Your task to perform on an android device: What's the weather going to be this weekend? Image 0: 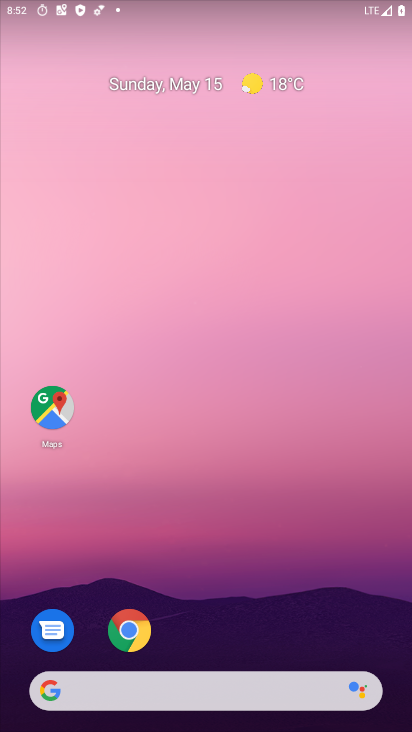
Step 0: click (363, 30)
Your task to perform on an android device: What's the weather going to be this weekend? Image 1: 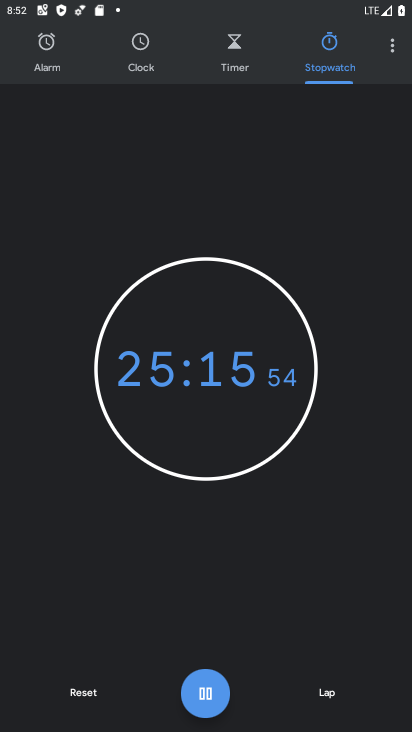
Step 1: click (331, 422)
Your task to perform on an android device: What's the weather going to be this weekend? Image 2: 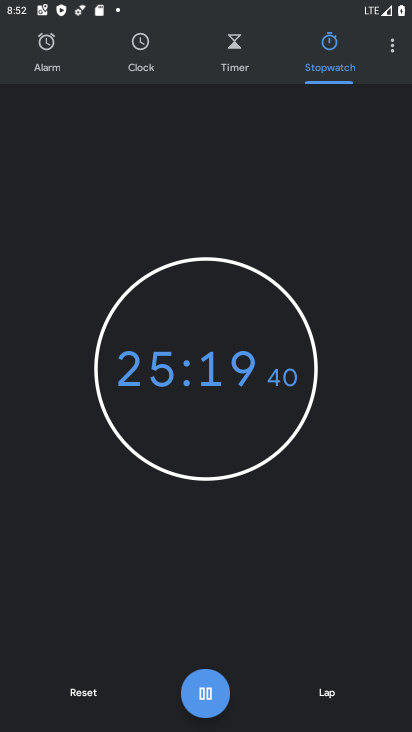
Step 2: press home button
Your task to perform on an android device: What's the weather going to be this weekend? Image 3: 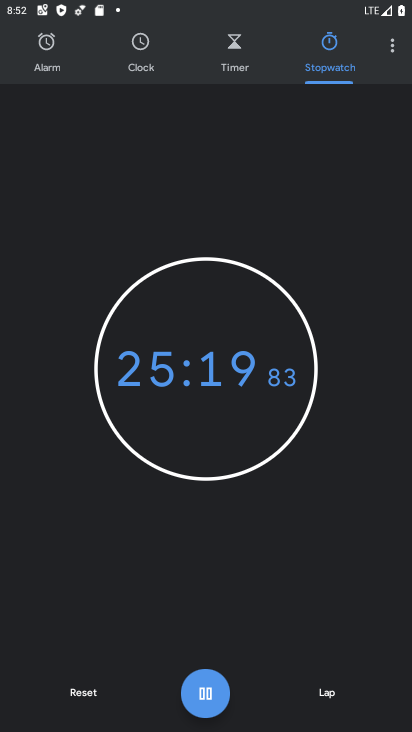
Step 3: press home button
Your task to perform on an android device: What's the weather going to be this weekend? Image 4: 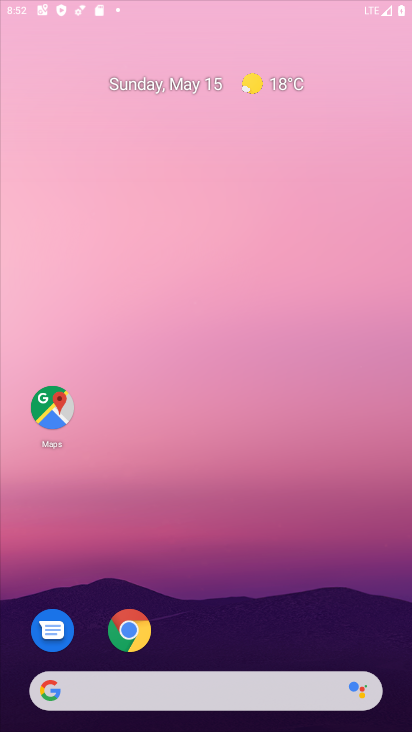
Step 4: drag from (211, 610) to (240, 226)
Your task to perform on an android device: What's the weather going to be this weekend? Image 5: 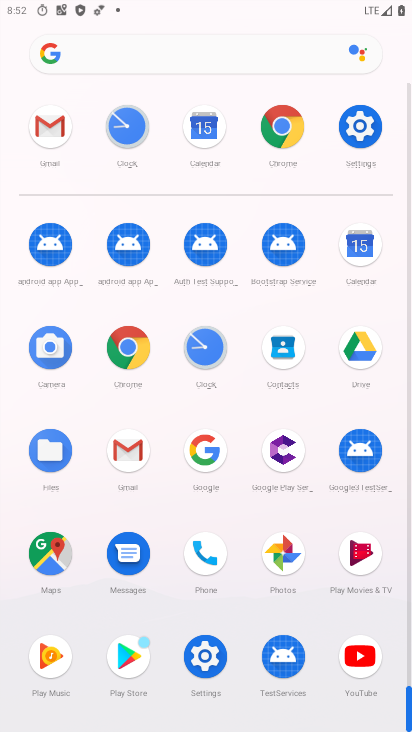
Step 5: click (206, 54)
Your task to perform on an android device: What's the weather going to be this weekend? Image 6: 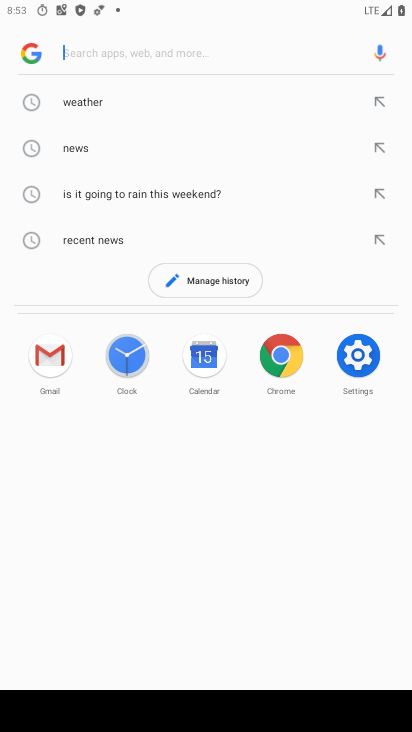
Step 6: type "weather going to be this weekend ?"
Your task to perform on an android device: What's the weather going to be this weekend? Image 7: 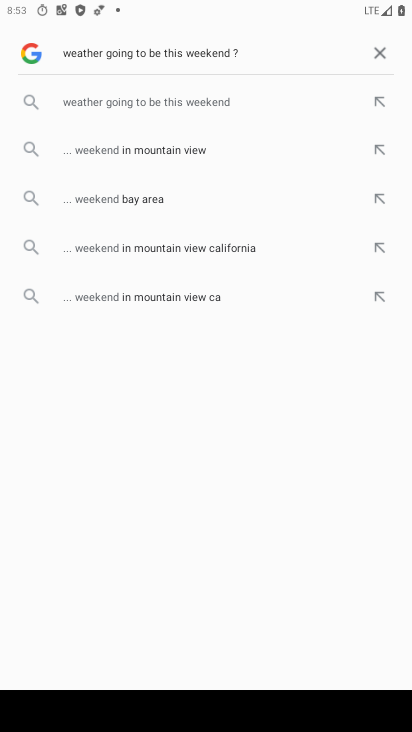
Step 7: click (189, 92)
Your task to perform on an android device: What's the weather going to be this weekend? Image 8: 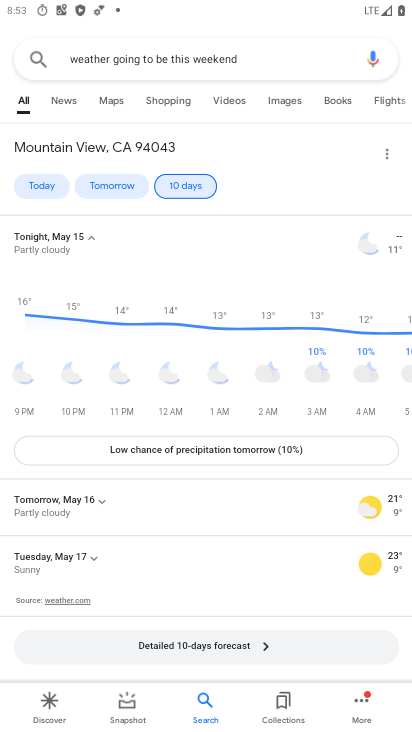
Step 8: task complete